Your task to perform on an android device: see sites visited before in the chrome app Image 0: 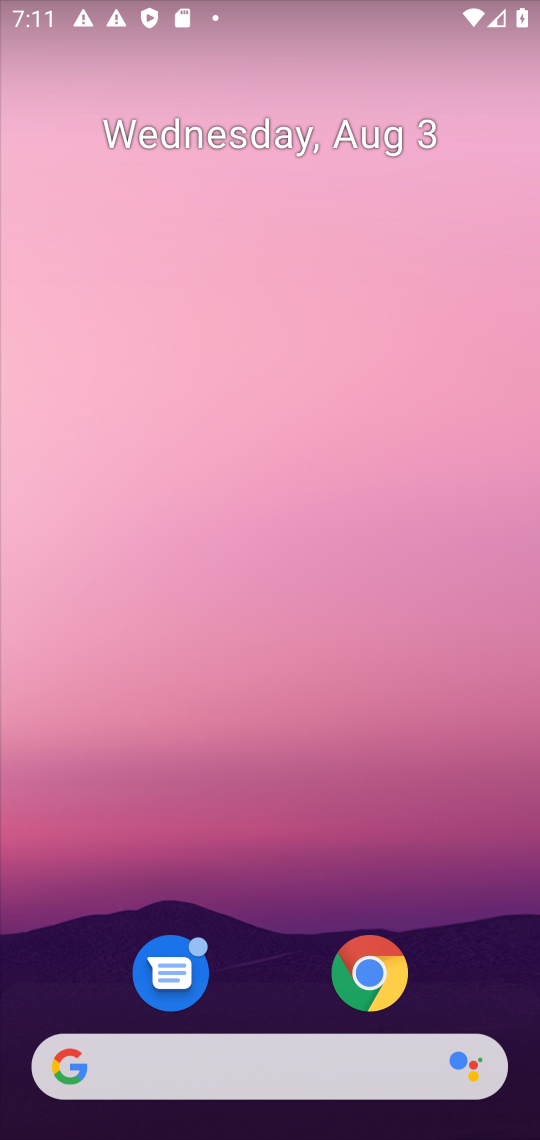
Step 0: click (389, 955)
Your task to perform on an android device: see sites visited before in the chrome app Image 1: 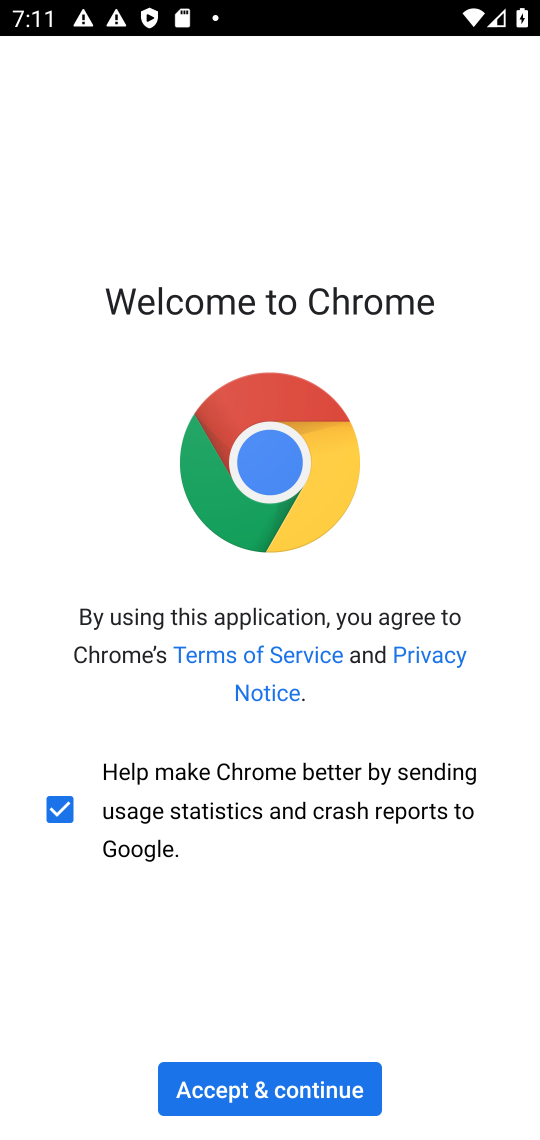
Step 1: click (293, 1097)
Your task to perform on an android device: see sites visited before in the chrome app Image 2: 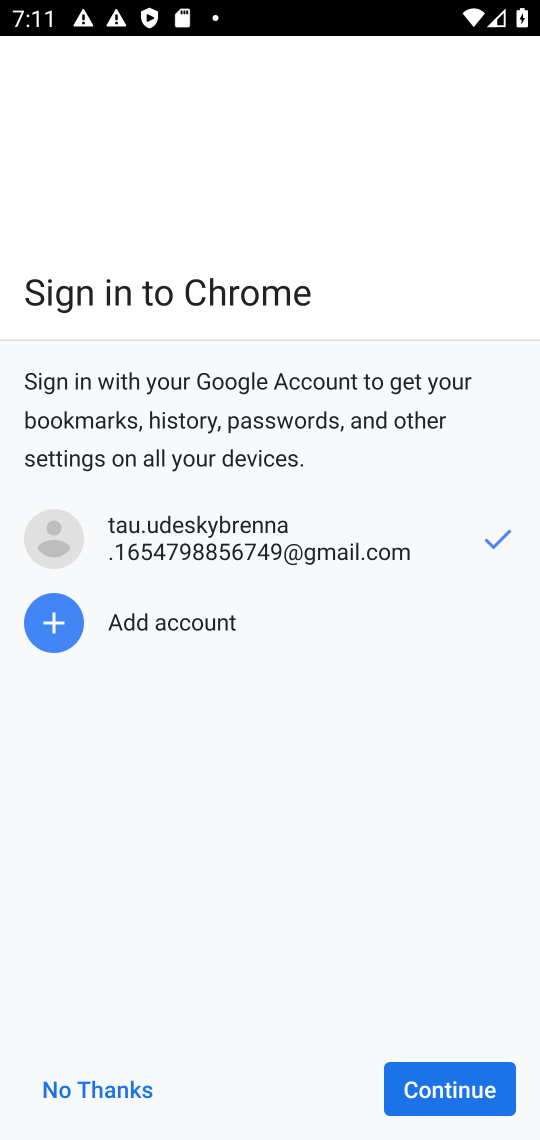
Step 2: click (490, 1073)
Your task to perform on an android device: see sites visited before in the chrome app Image 3: 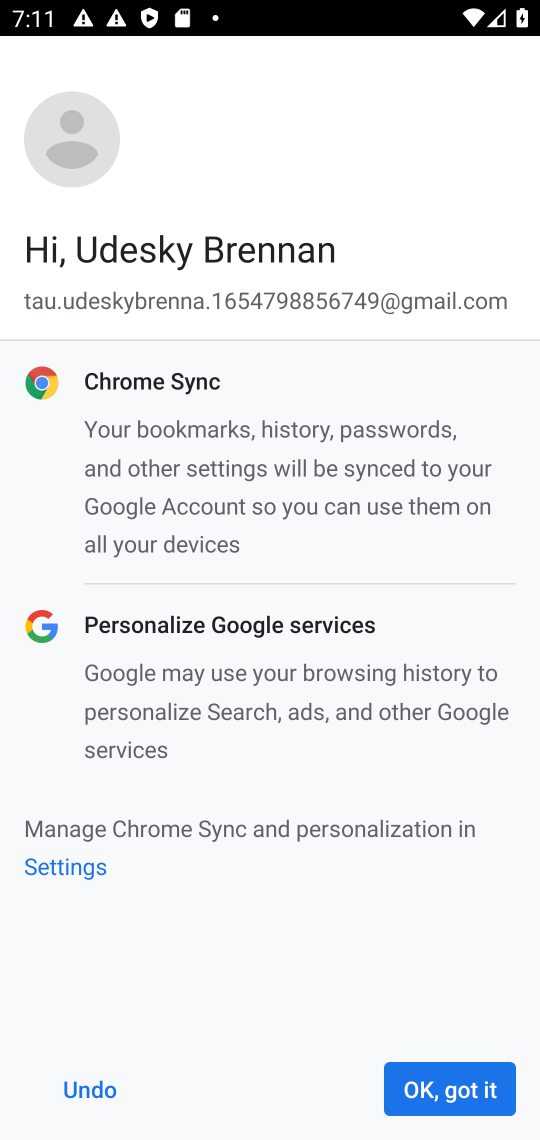
Step 3: click (490, 1073)
Your task to perform on an android device: see sites visited before in the chrome app Image 4: 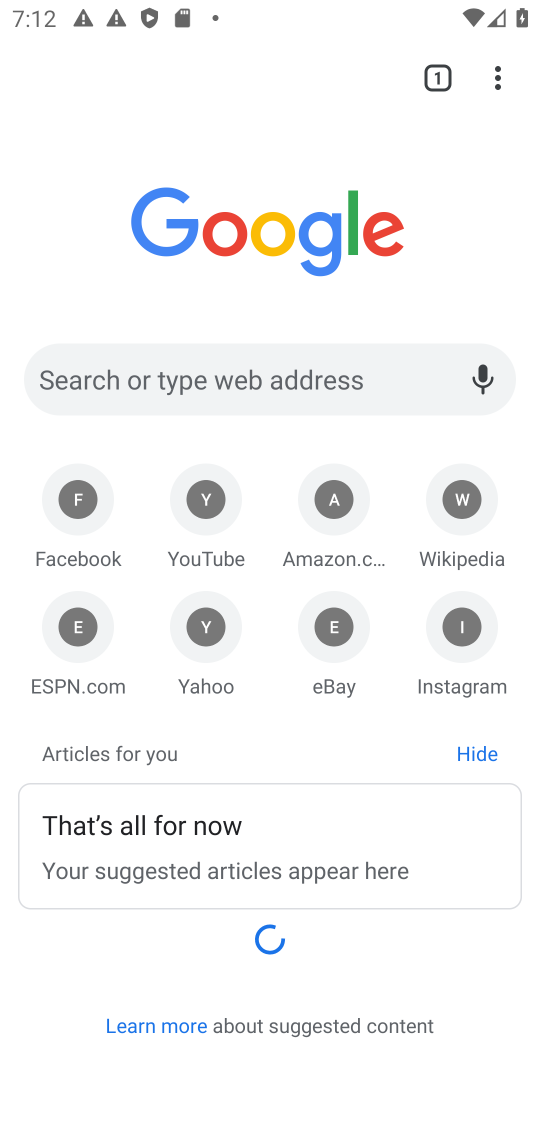
Step 4: click (499, 67)
Your task to perform on an android device: see sites visited before in the chrome app Image 5: 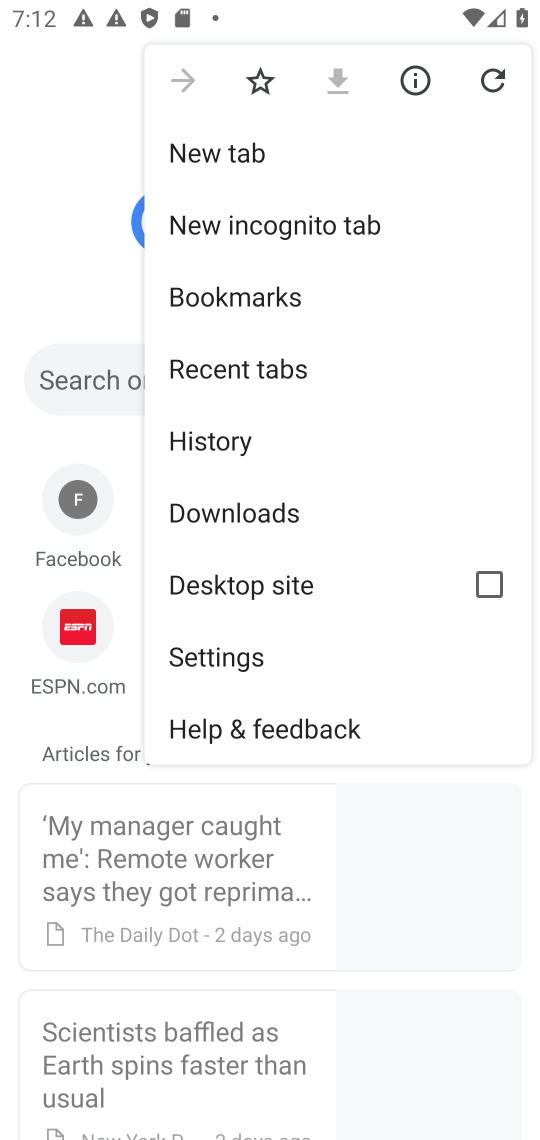
Step 5: click (204, 438)
Your task to perform on an android device: see sites visited before in the chrome app Image 6: 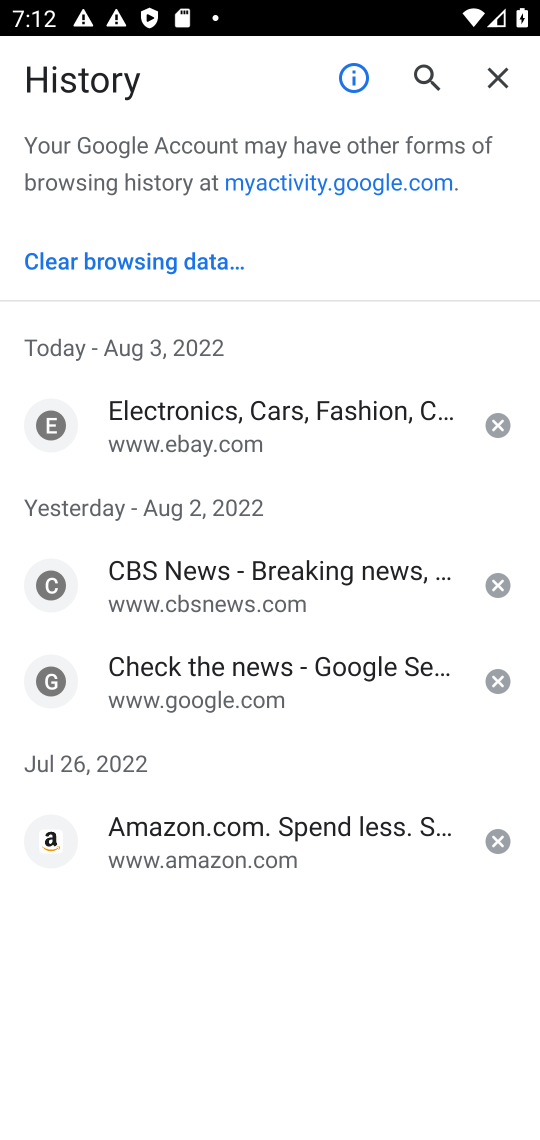
Step 6: task complete